Your task to perform on an android device: check android version Image 0: 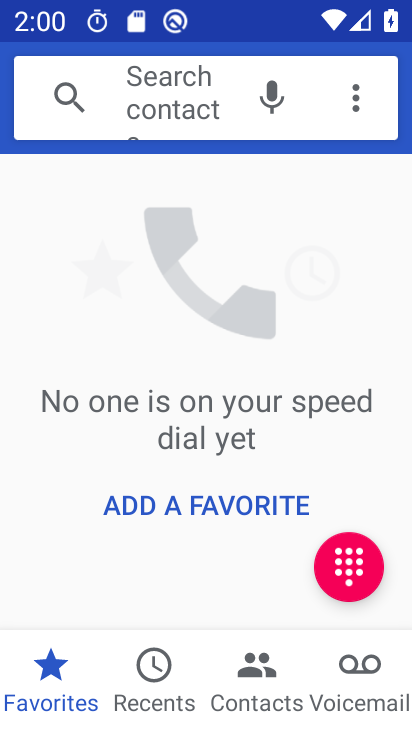
Step 0: press home button
Your task to perform on an android device: check android version Image 1: 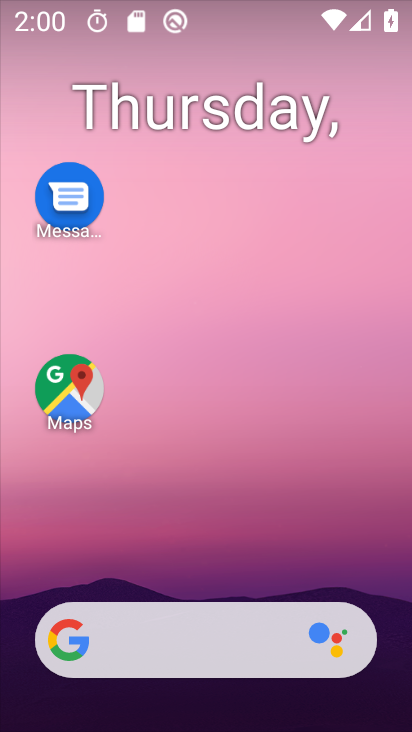
Step 1: drag from (180, 533) to (201, 164)
Your task to perform on an android device: check android version Image 2: 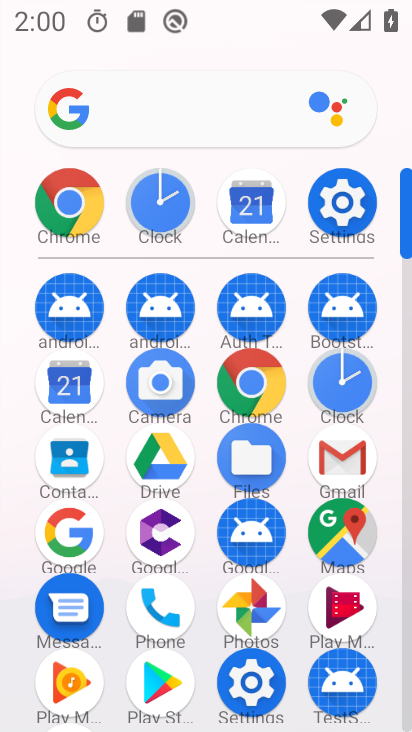
Step 2: click (340, 209)
Your task to perform on an android device: check android version Image 3: 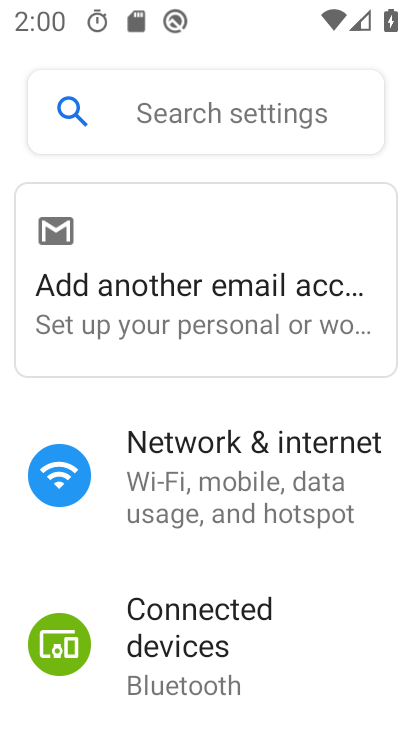
Step 3: drag from (180, 684) to (249, 231)
Your task to perform on an android device: check android version Image 4: 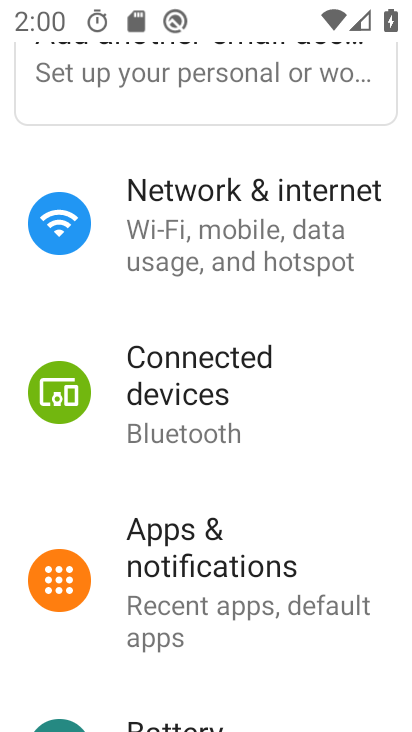
Step 4: drag from (205, 648) to (263, 270)
Your task to perform on an android device: check android version Image 5: 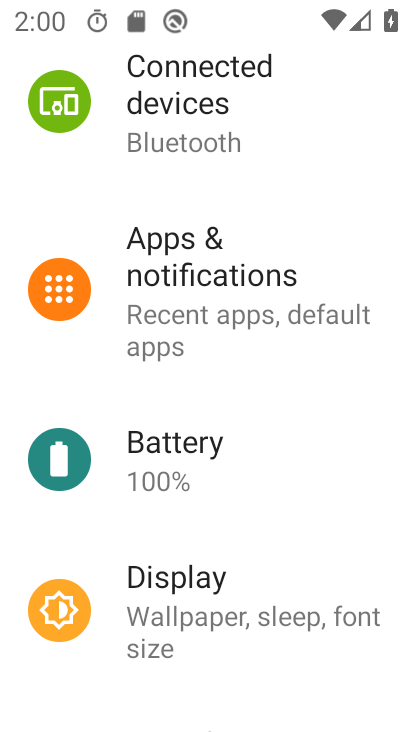
Step 5: drag from (210, 645) to (252, 224)
Your task to perform on an android device: check android version Image 6: 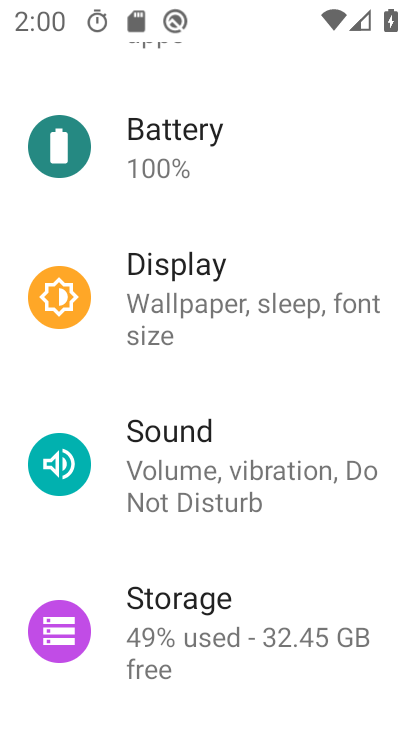
Step 6: drag from (212, 652) to (289, 256)
Your task to perform on an android device: check android version Image 7: 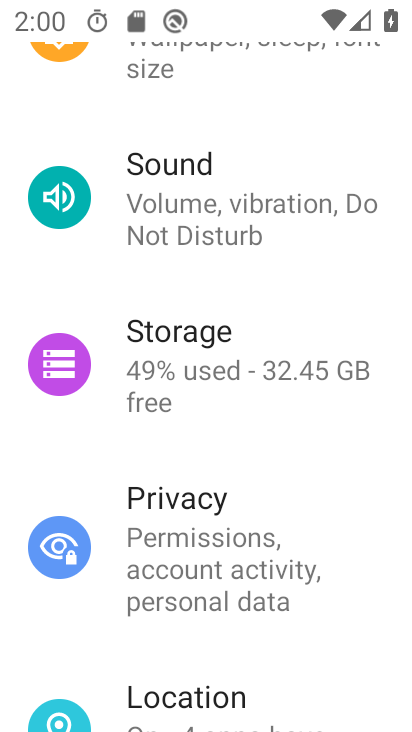
Step 7: drag from (282, 691) to (323, 266)
Your task to perform on an android device: check android version Image 8: 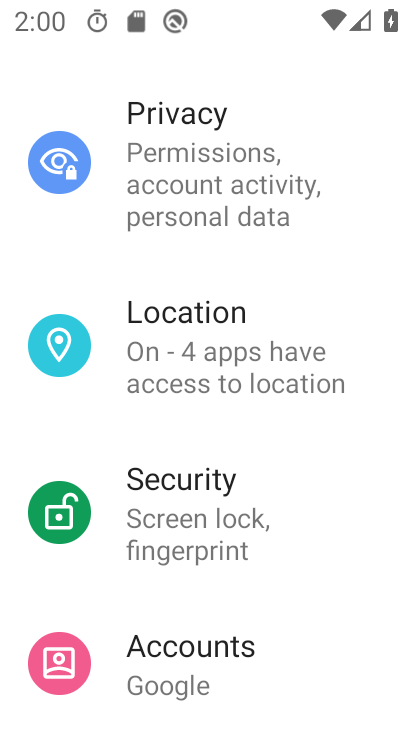
Step 8: drag from (253, 667) to (259, 351)
Your task to perform on an android device: check android version Image 9: 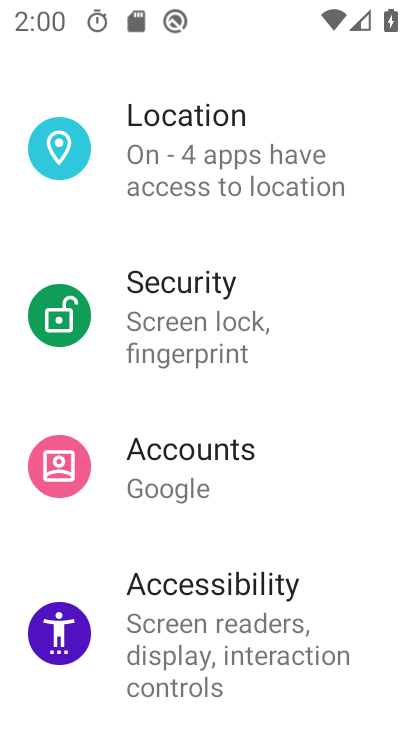
Step 9: drag from (243, 644) to (272, 369)
Your task to perform on an android device: check android version Image 10: 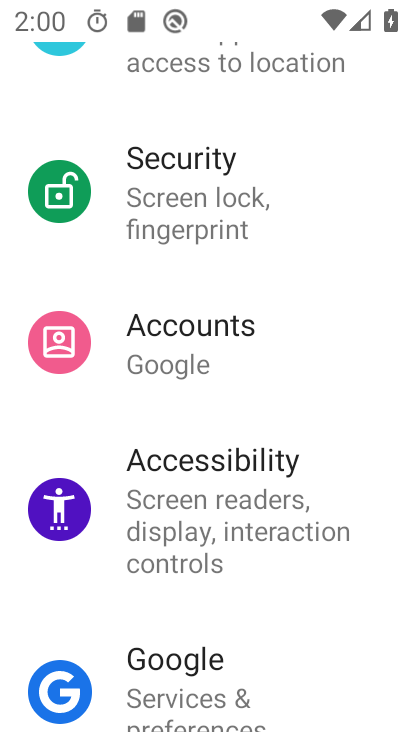
Step 10: drag from (243, 654) to (269, 423)
Your task to perform on an android device: check android version Image 11: 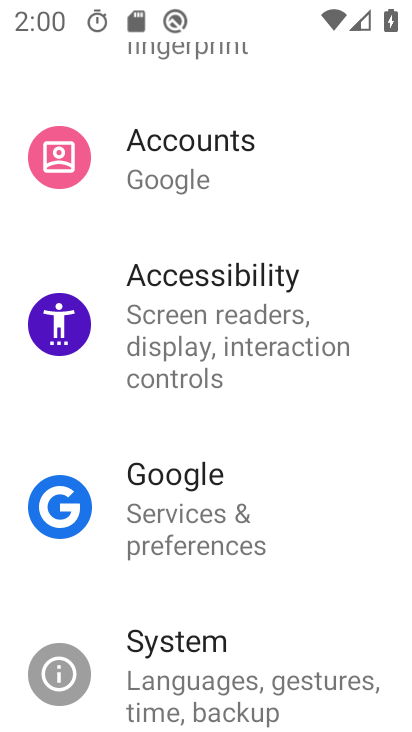
Step 11: drag from (234, 618) to (267, 297)
Your task to perform on an android device: check android version Image 12: 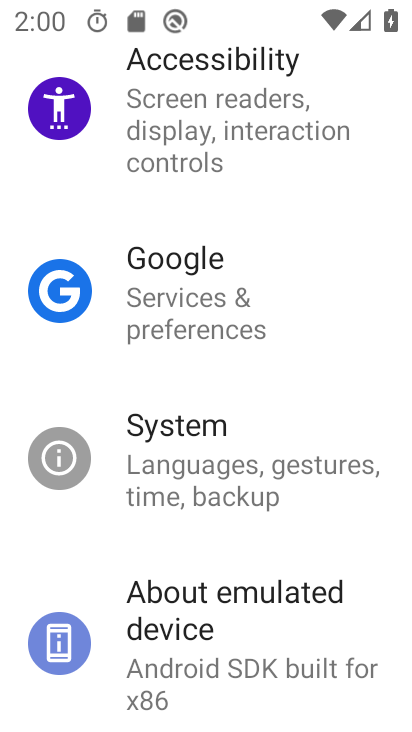
Step 12: drag from (214, 635) to (256, 338)
Your task to perform on an android device: check android version Image 13: 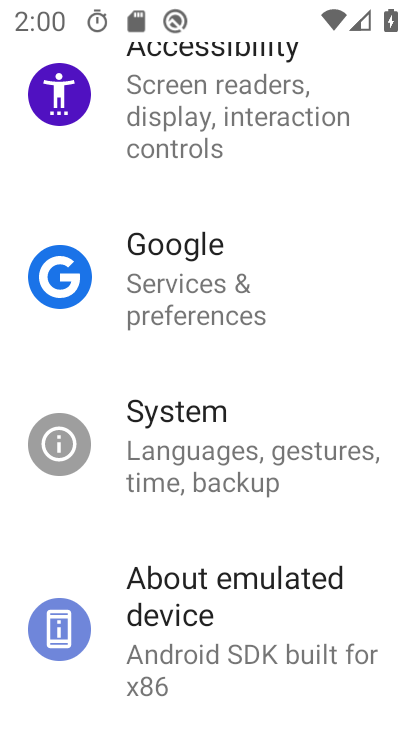
Step 13: click (186, 626)
Your task to perform on an android device: check android version Image 14: 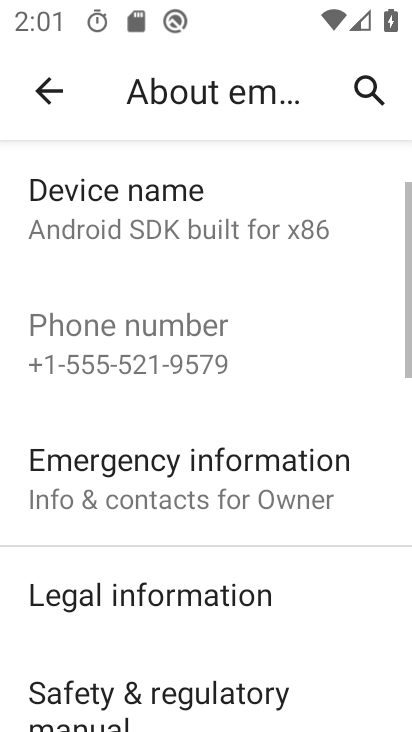
Step 14: drag from (147, 626) to (199, 347)
Your task to perform on an android device: check android version Image 15: 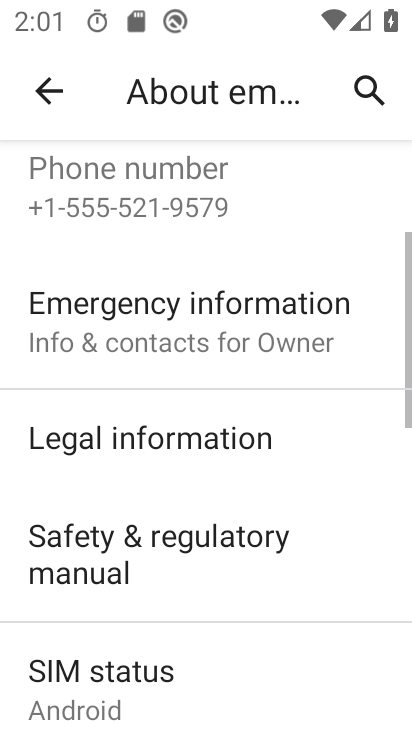
Step 15: drag from (177, 658) to (275, 239)
Your task to perform on an android device: check android version Image 16: 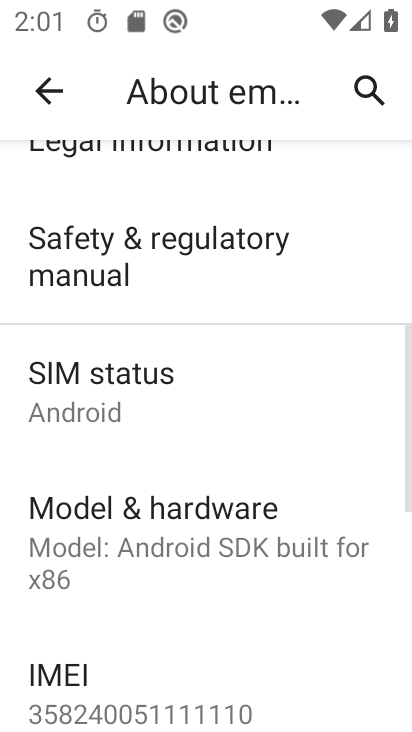
Step 16: drag from (180, 647) to (258, 324)
Your task to perform on an android device: check android version Image 17: 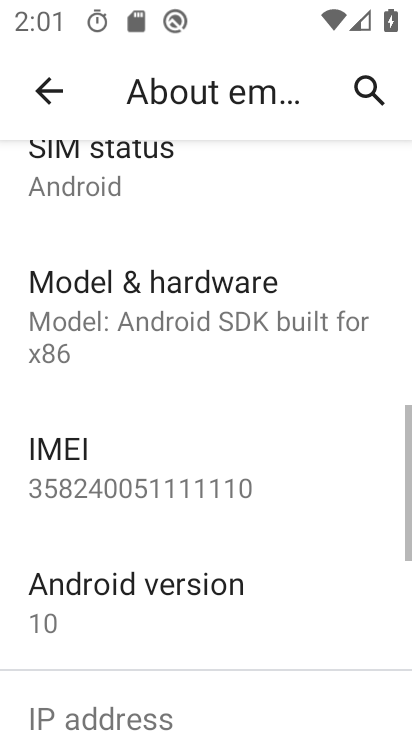
Step 17: click (165, 583)
Your task to perform on an android device: check android version Image 18: 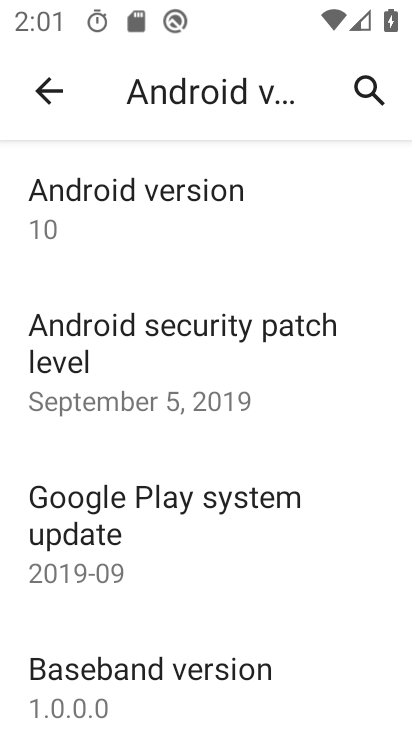
Step 18: task complete